Your task to perform on an android device: empty trash in the gmail app Image 0: 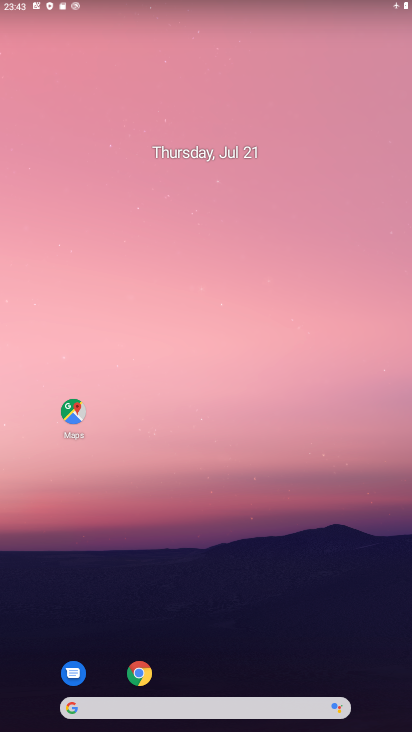
Step 0: drag from (242, 667) to (256, 146)
Your task to perform on an android device: empty trash in the gmail app Image 1: 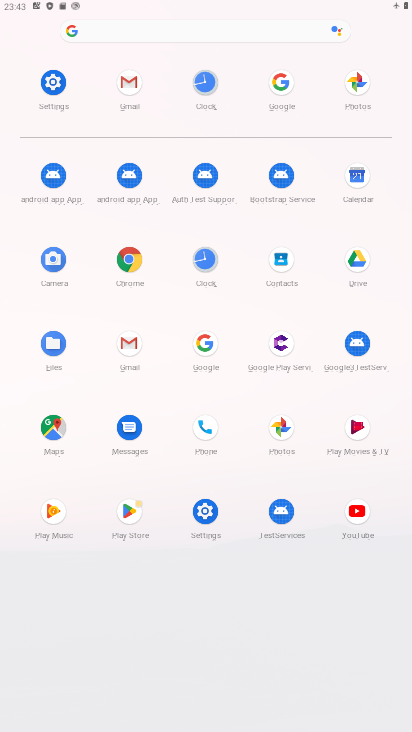
Step 1: click (136, 95)
Your task to perform on an android device: empty trash in the gmail app Image 2: 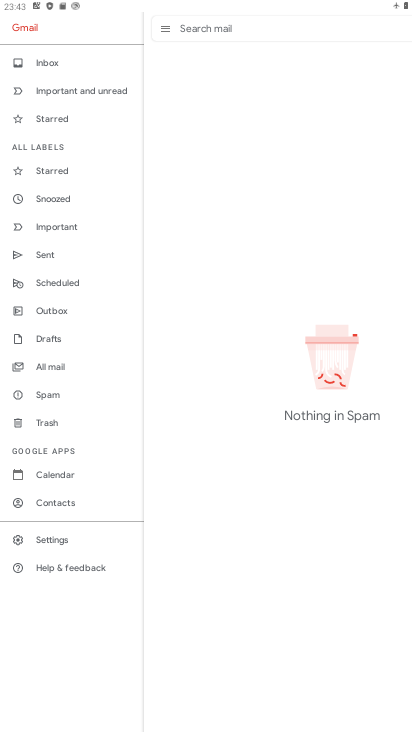
Step 2: click (67, 417)
Your task to perform on an android device: empty trash in the gmail app Image 3: 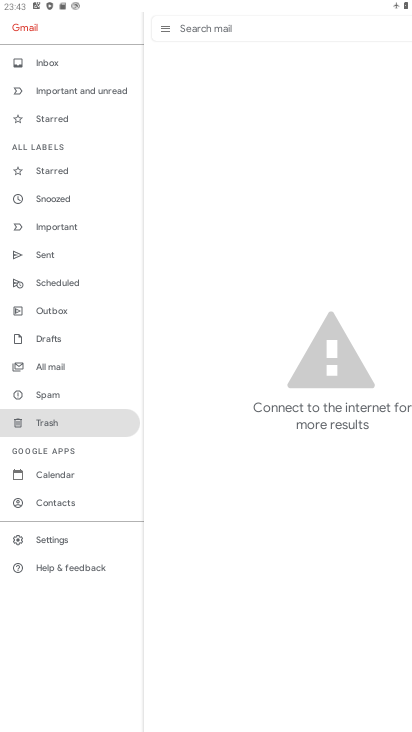
Step 3: task complete